Your task to perform on an android device: change keyboard looks Image 0: 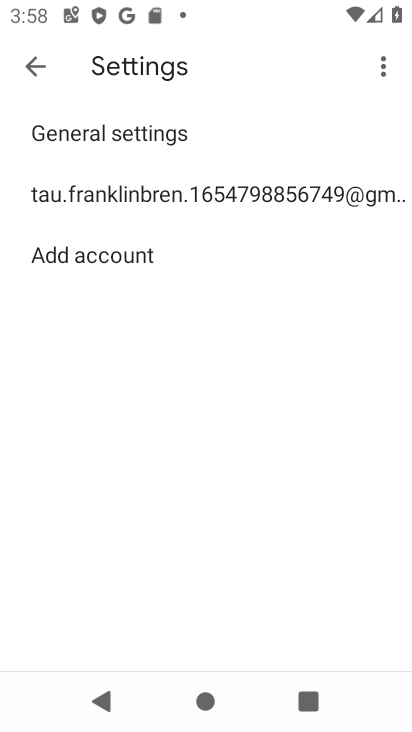
Step 0: press home button
Your task to perform on an android device: change keyboard looks Image 1: 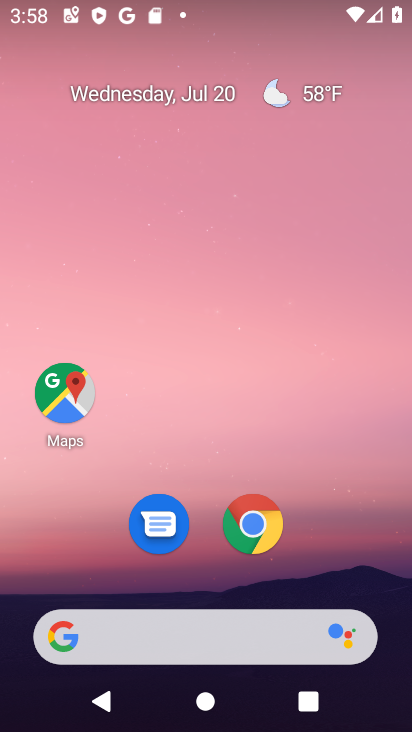
Step 1: drag from (311, 542) to (321, 37)
Your task to perform on an android device: change keyboard looks Image 2: 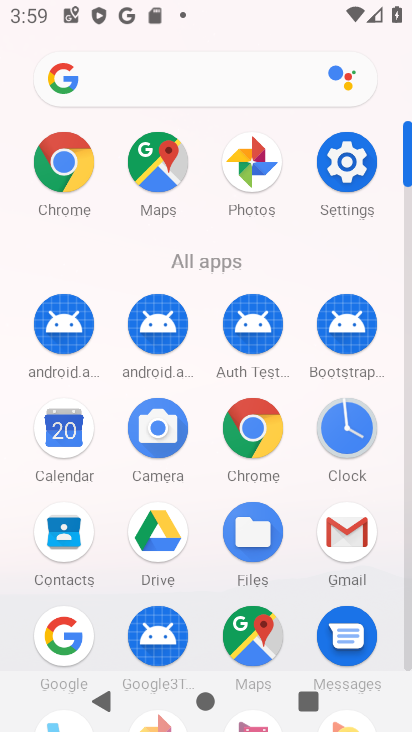
Step 2: click (350, 162)
Your task to perform on an android device: change keyboard looks Image 3: 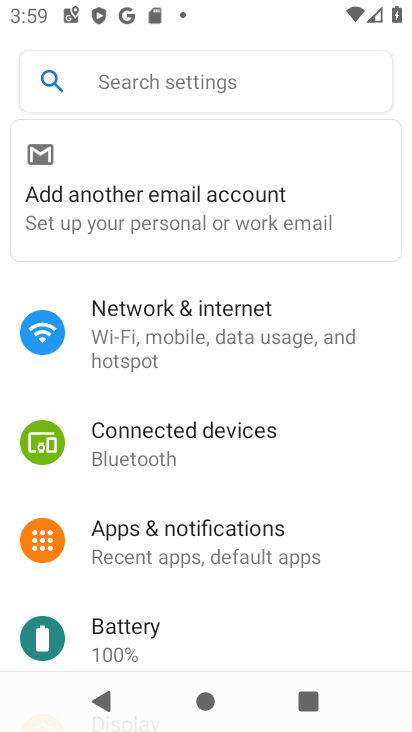
Step 3: drag from (243, 557) to (310, 96)
Your task to perform on an android device: change keyboard looks Image 4: 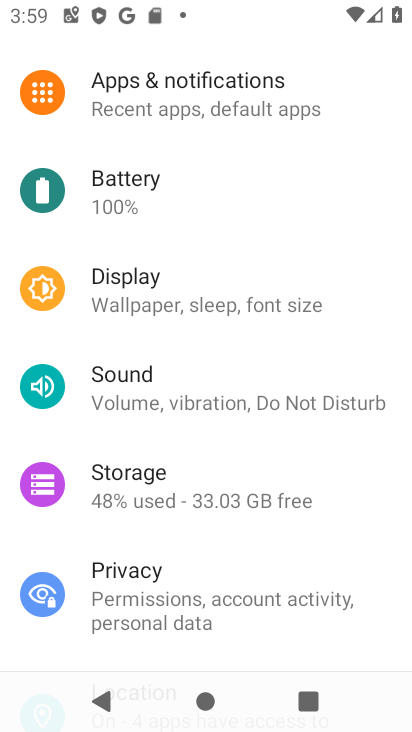
Step 4: drag from (198, 539) to (277, 68)
Your task to perform on an android device: change keyboard looks Image 5: 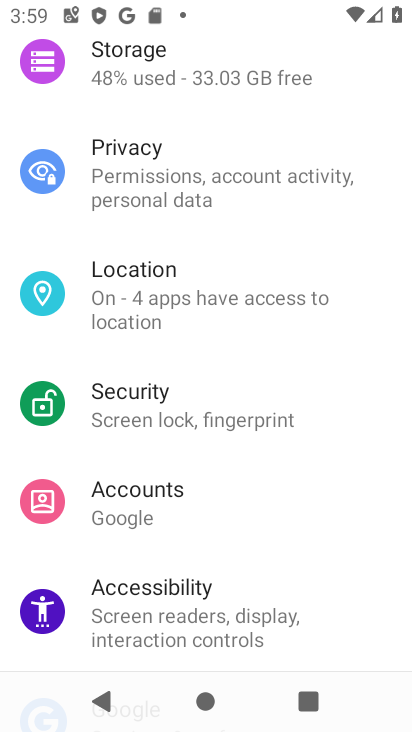
Step 5: drag from (237, 514) to (261, 126)
Your task to perform on an android device: change keyboard looks Image 6: 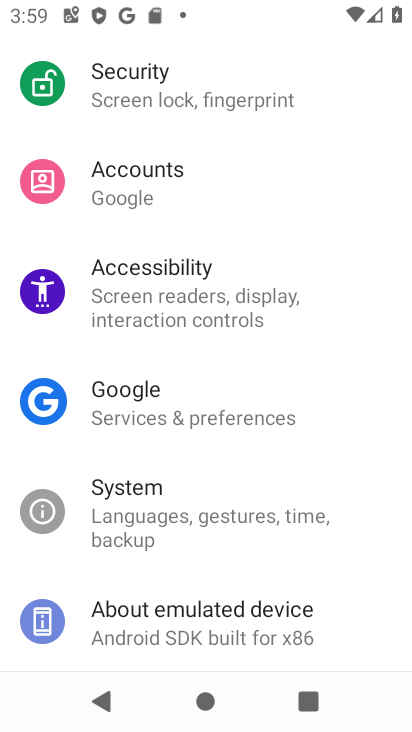
Step 6: click (164, 508)
Your task to perform on an android device: change keyboard looks Image 7: 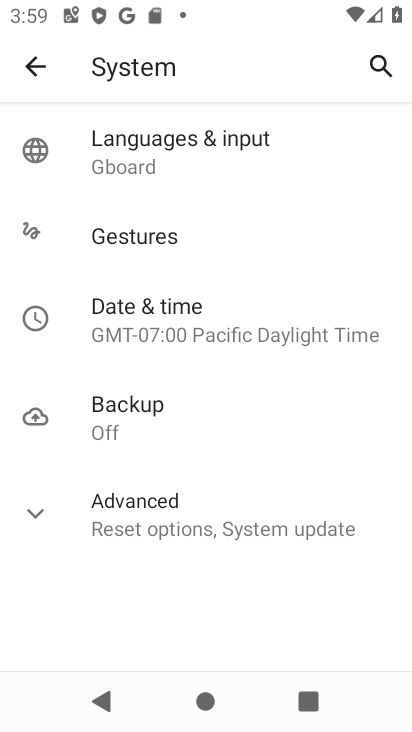
Step 7: click (167, 156)
Your task to perform on an android device: change keyboard looks Image 8: 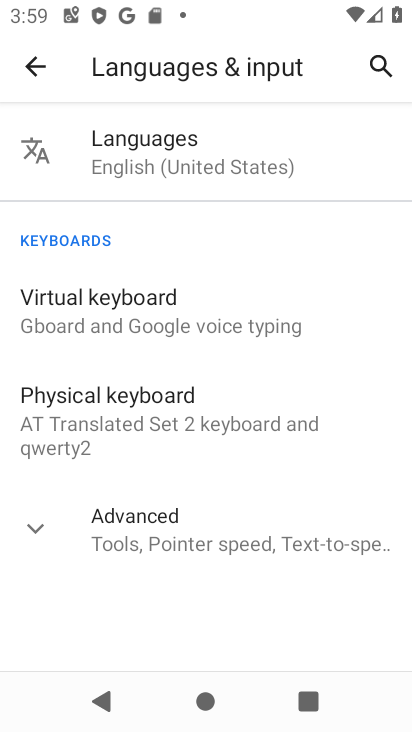
Step 8: click (147, 304)
Your task to perform on an android device: change keyboard looks Image 9: 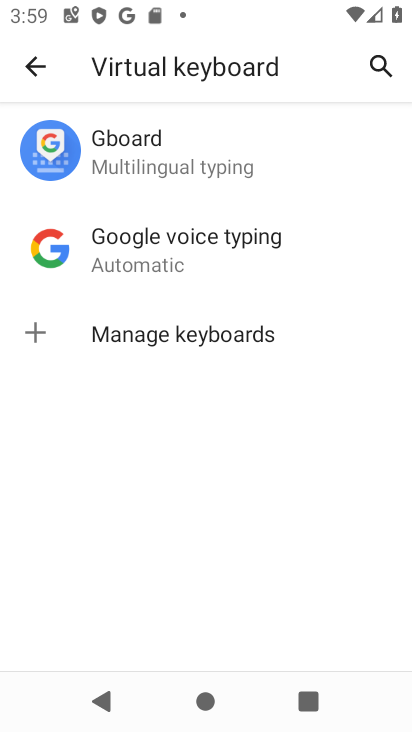
Step 9: click (167, 145)
Your task to perform on an android device: change keyboard looks Image 10: 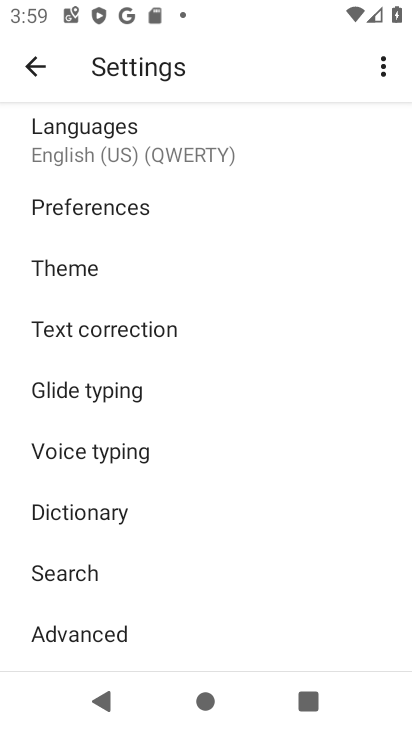
Step 10: click (92, 272)
Your task to perform on an android device: change keyboard looks Image 11: 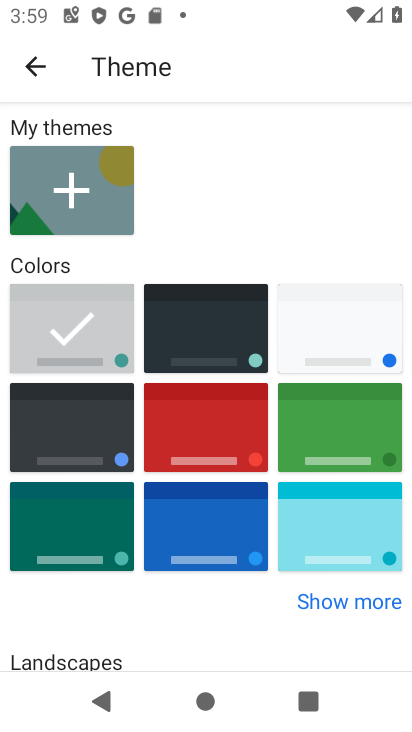
Step 11: click (198, 419)
Your task to perform on an android device: change keyboard looks Image 12: 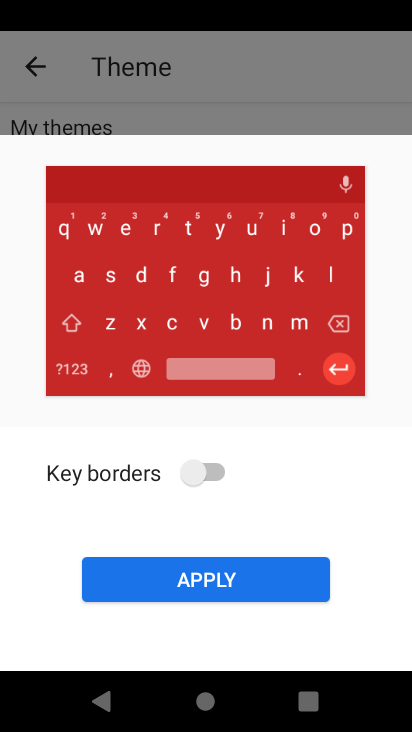
Step 12: click (207, 460)
Your task to perform on an android device: change keyboard looks Image 13: 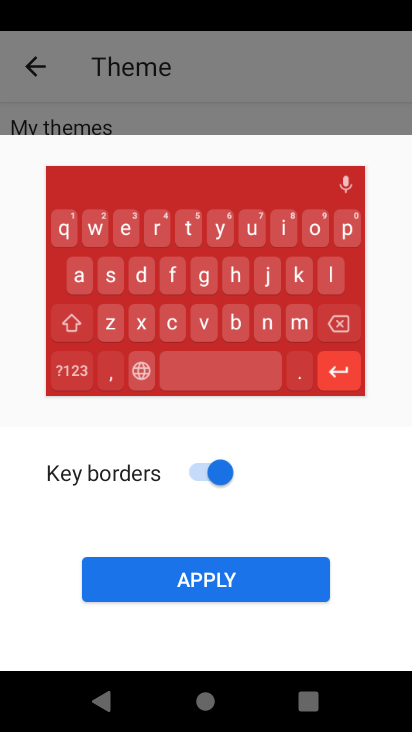
Step 13: click (227, 575)
Your task to perform on an android device: change keyboard looks Image 14: 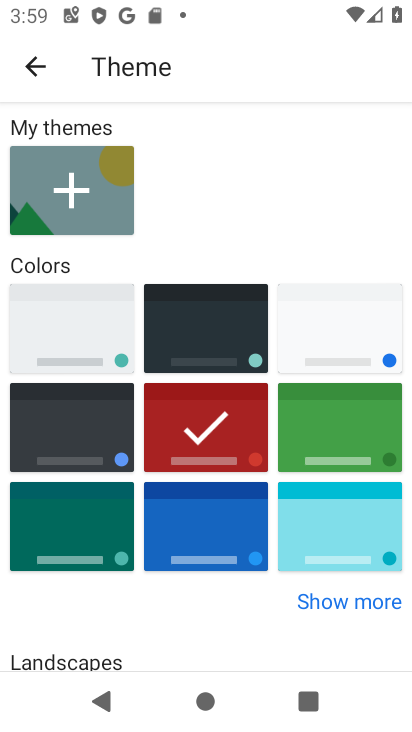
Step 14: task complete